Your task to perform on an android device: Open accessibility settings Image 0: 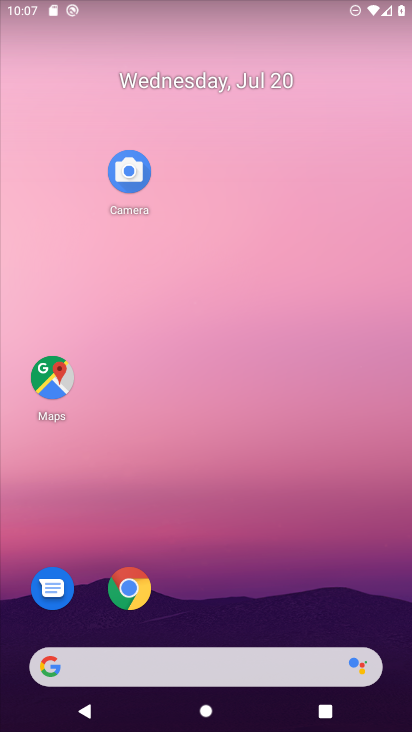
Step 0: press home button
Your task to perform on an android device: Open accessibility settings Image 1: 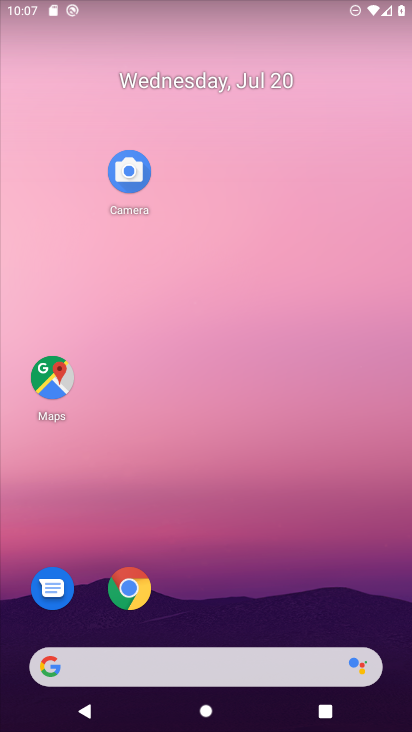
Step 1: drag from (195, 607) to (193, 168)
Your task to perform on an android device: Open accessibility settings Image 2: 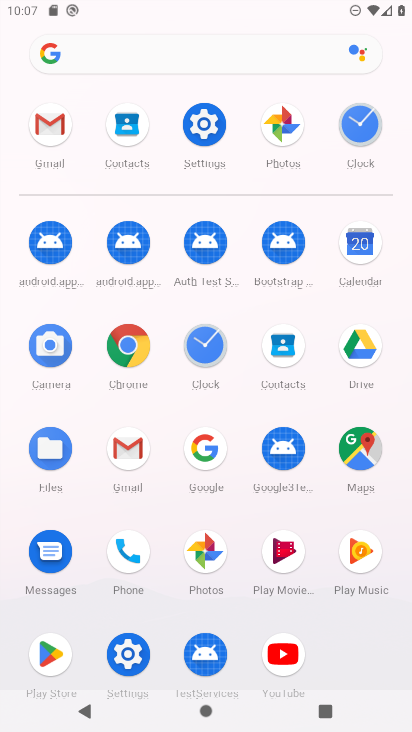
Step 2: click (217, 128)
Your task to perform on an android device: Open accessibility settings Image 3: 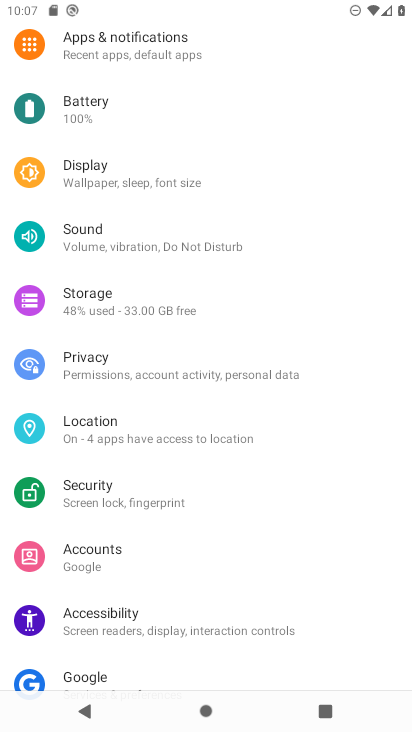
Step 3: click (78, 613)
Your task to perform on an android device: Open accessibility settings Image 4: 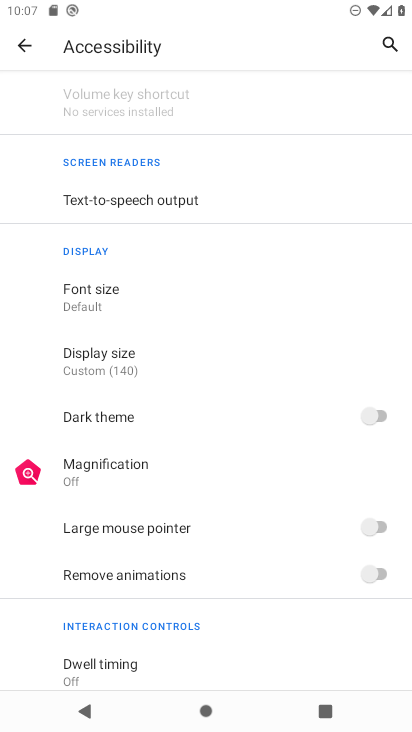
Step 4: task complete